Your task to perform on an android device: add a label to a message in the gmail app Image 0: 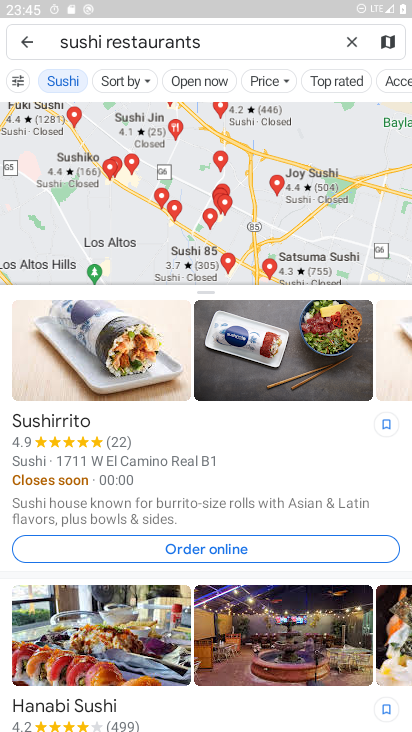
Step 0: press home button
Your task to perform on an android device: add a label to a message in the gmail app Image 1: 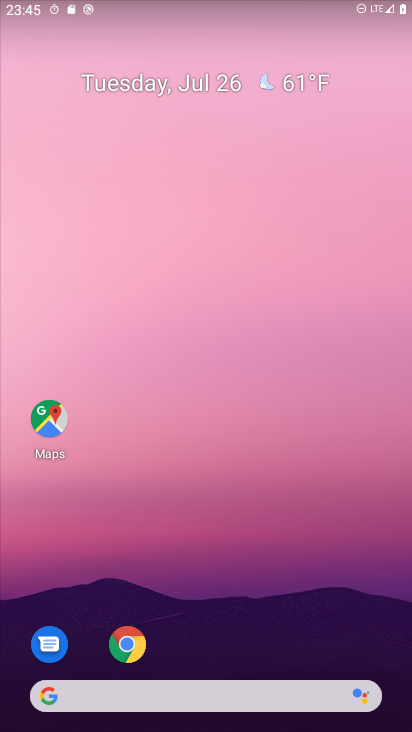
Step 1: drag from (246, 668) to (227, 0)
Your task to perform on an android device: add a label to a message in the gmail app Image 2: 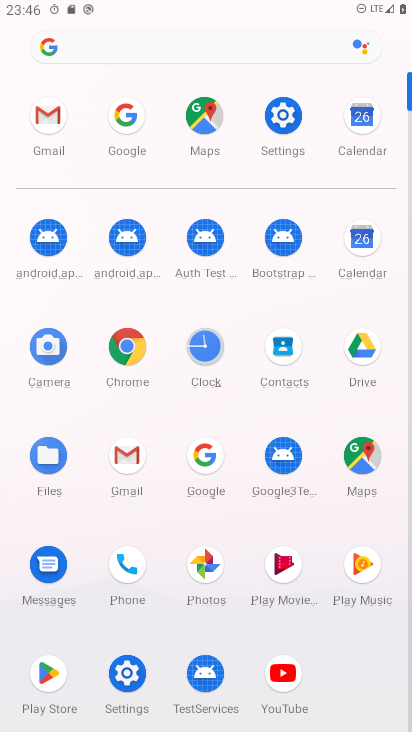
Step 2: click (54, 124)
Your task to perform on an android device: add a label to a message in the gmail app Image 3: 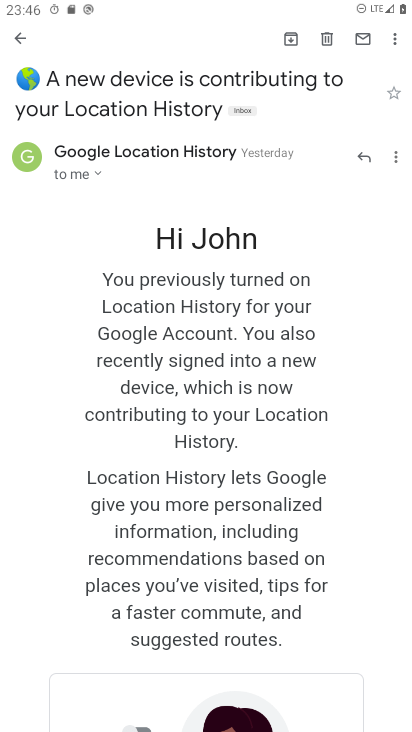
Step 3: task complete